Your task to perform on an android device: What is the news today? Image 0: 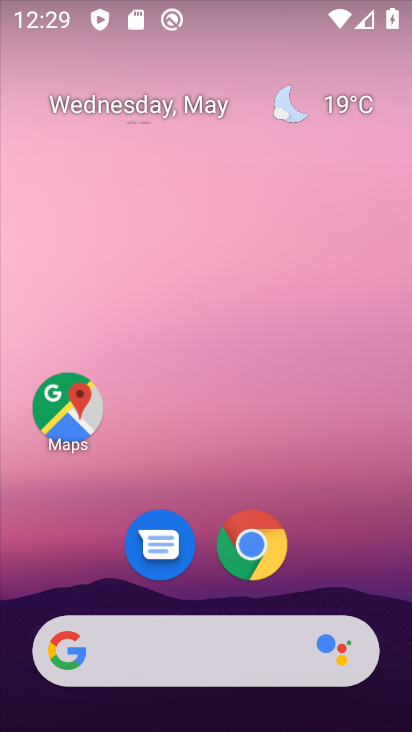
Step 0: click (127, 663)
Your task to perform on an android device: What is the news today? Image 1: 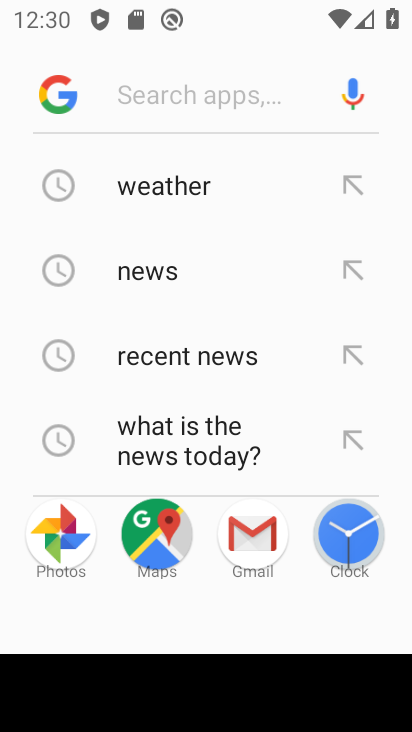
Step 1: click (149, 286)
Your task to perform on an android device: What is the news today? Image 2: 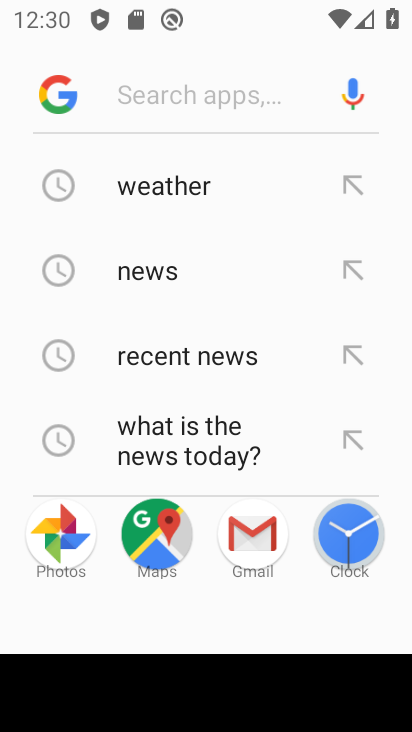
Step 2: click (88, 270)
Your task to perform on an android device: What is the news today? Image 3: 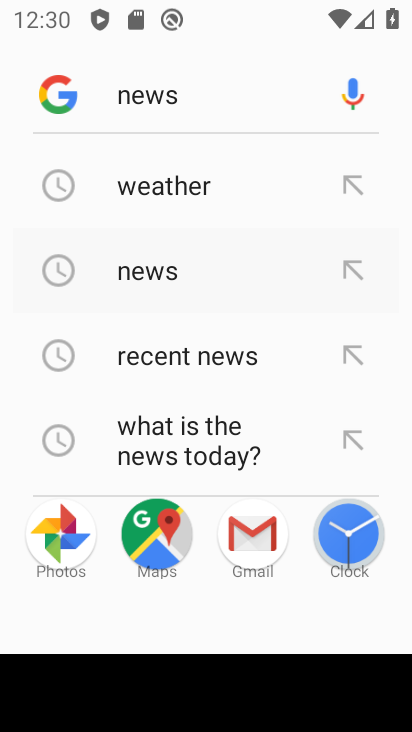
Step 3: click (175, 273)
Your task to perform on an android device: What is the news today? Image 4: 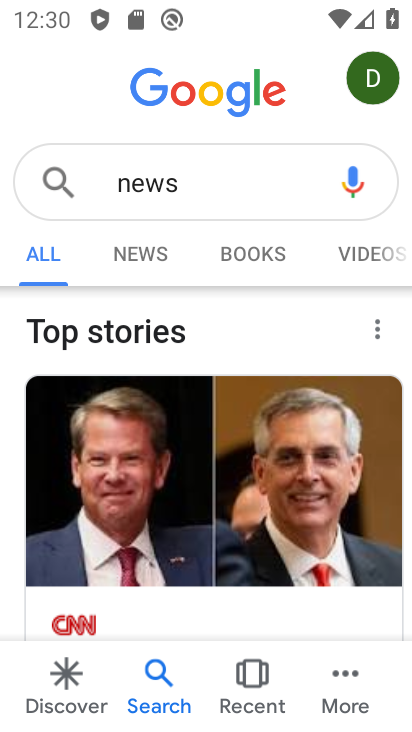
Step 4: task complete